Your task to perform on an android device: Search for pizza restaurants on Maps Image 0: 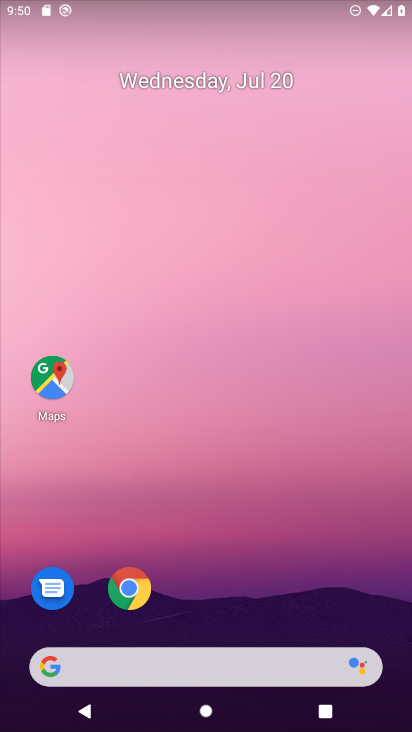
Step 0: click (66, 400)
Your task to perform on an android device: Search for pizza restaurants on Maps Image 1: 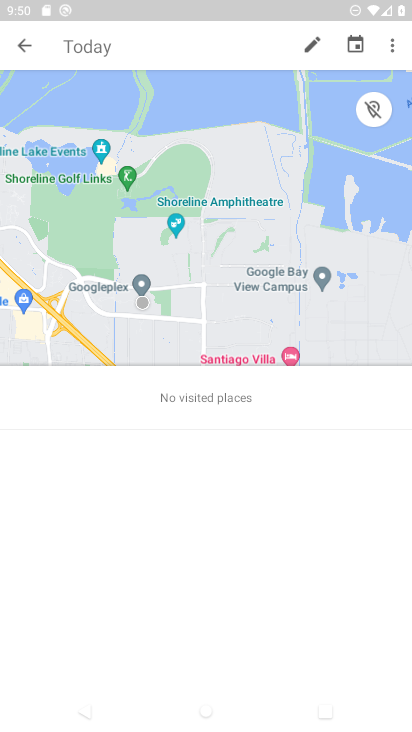
Step 1: click (31, 58)
Your task to perform on an android device: Search for pizza restaurants on Maps Image 2: 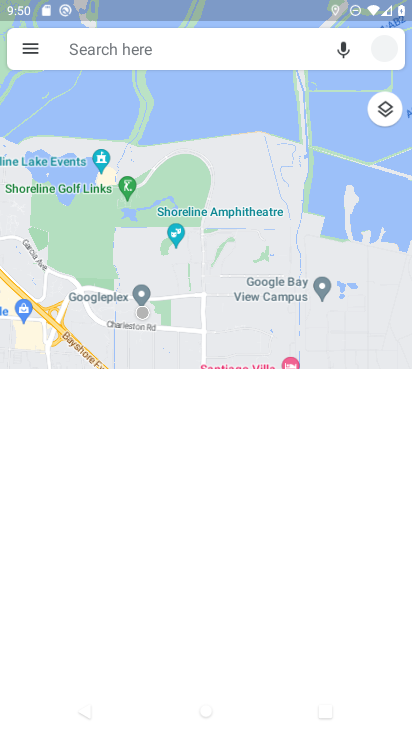
Step 2: click (125, 48)
Your task to perform on an android device: Search for pizza restaurants on Maps Image 3: 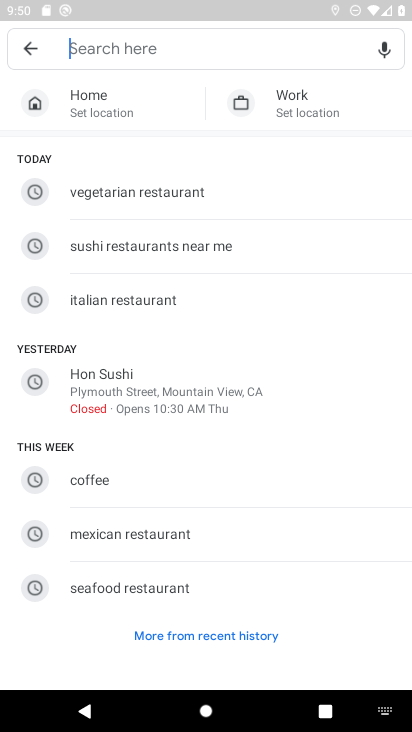
Step 3: type "pixx"
Your task to perform on an android device: Search for pizza restaurants on Maps Image 4: 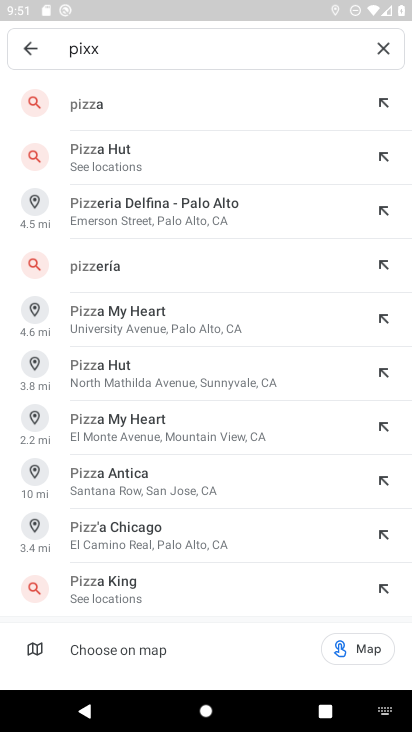
Step 4: type "pizza"
Your task to perform on an android device: Search for pizza restaurants on Maps Image 5: 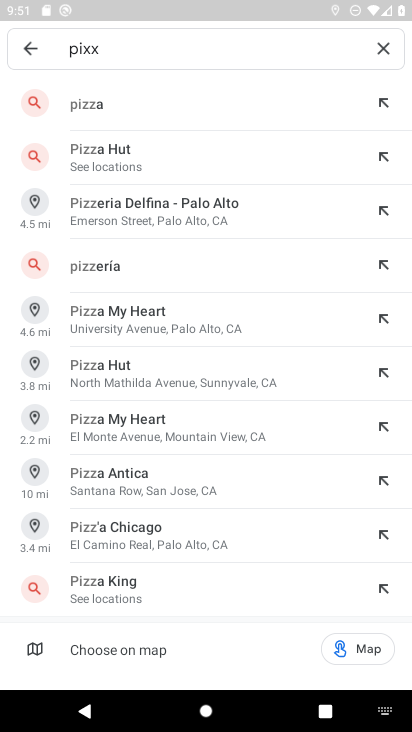
Step 5: click (99, 121)
Your task to perform on an android device: Search for pizza restaurants on Maps Image 6: 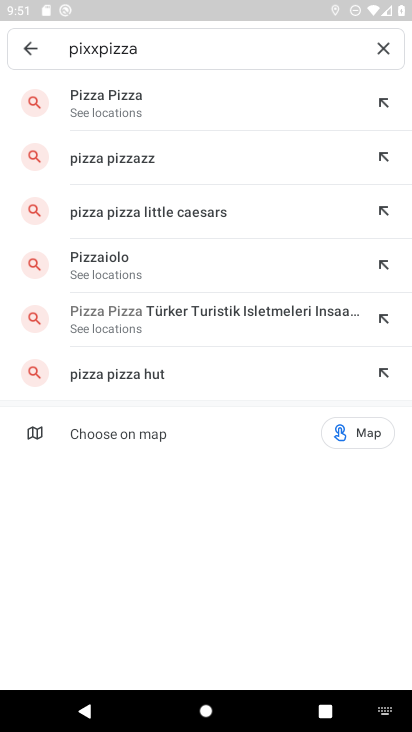
Step 6: click (382, 48)
Your task to perform on an android device: Search for pizza restaurants on Maps Image 7: 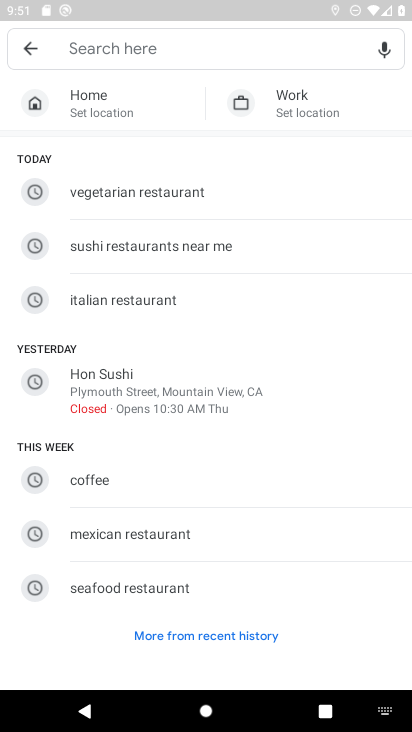
Step 7: type "pizza restaurant"
Your task to perform on an android device: Search for pizza restaurants on Maps Image 8: 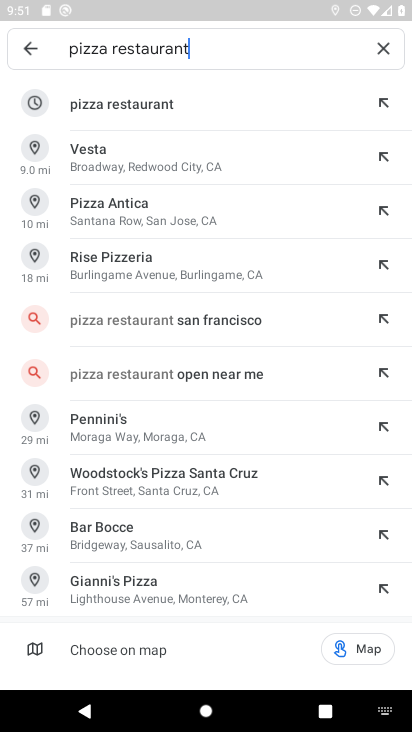
Step 8: click (86, 119)
Your task to perform on an android device: Search for pizza restaurants on Maps Image 9: 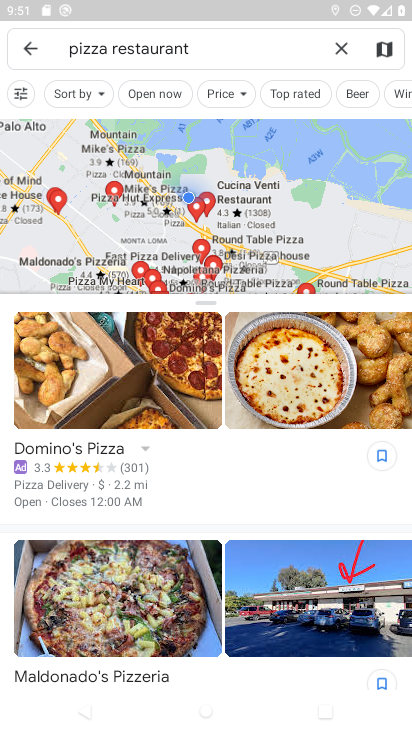
Step 9: task complete